Your task to perform on an android device: turn off priority inbox in the gmail app Image 0: 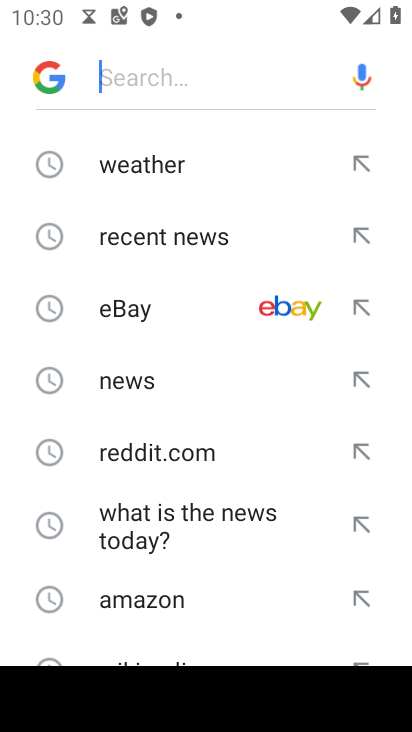
Step 0: press home button
Your task to perform on an android device: turn off priority inbox in the gmail app Image 1: 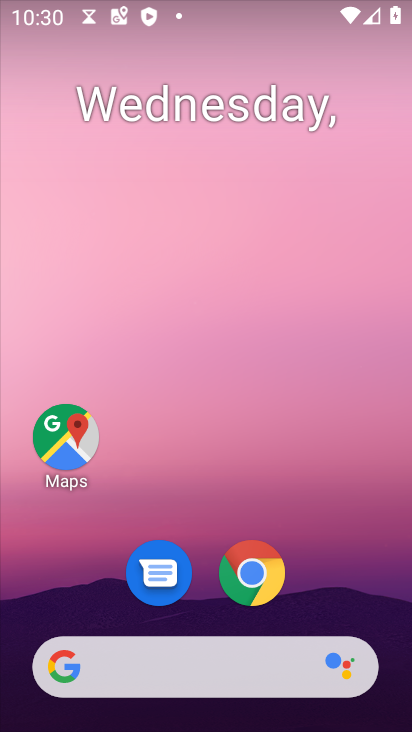
Step 1: drag from (210, 646) to (204, 223)
Your task to perform on an android device: turn off priority inbox in the gmail app Image 2: 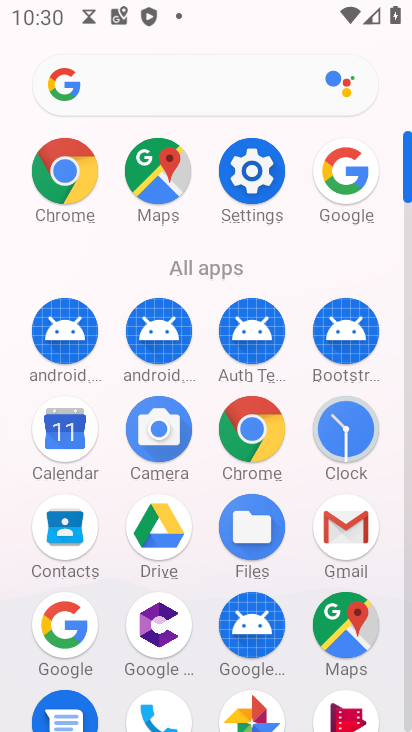
Step 2: click (360, 530)
Your task to perform on an android device: turn off priority inbox in the gmail app Image 3: 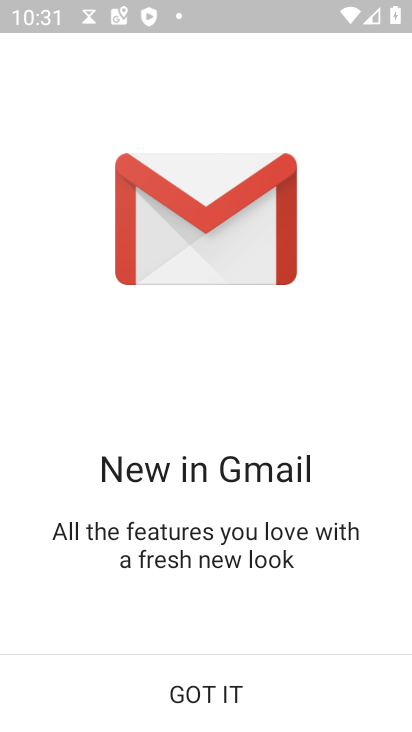
Step 3: click (216, 691)
Your task to perform on an android device: turn off priority inbox in the gmail app Image 4: 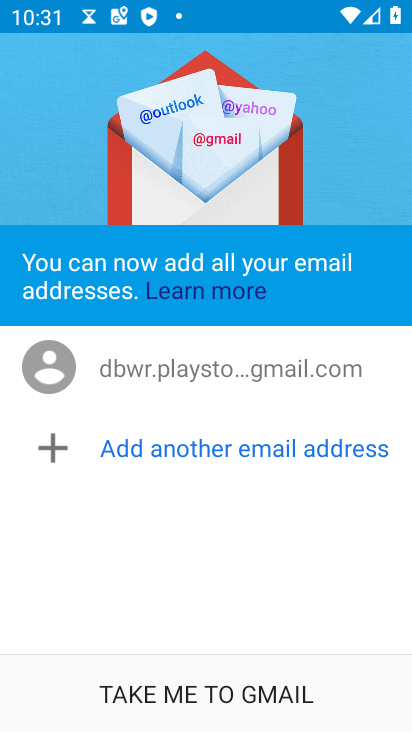
Step 4: click (213, 687)
Your task to perform on an android device: turn off priority inbox in the gmail app Image 5: 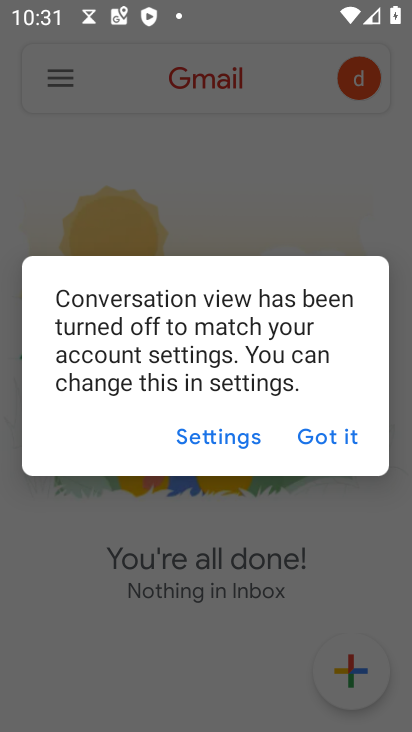
Step 5: click (348, 442)
Your task to perform on an android device: turn off priority inbox in the gmail app Image 6: 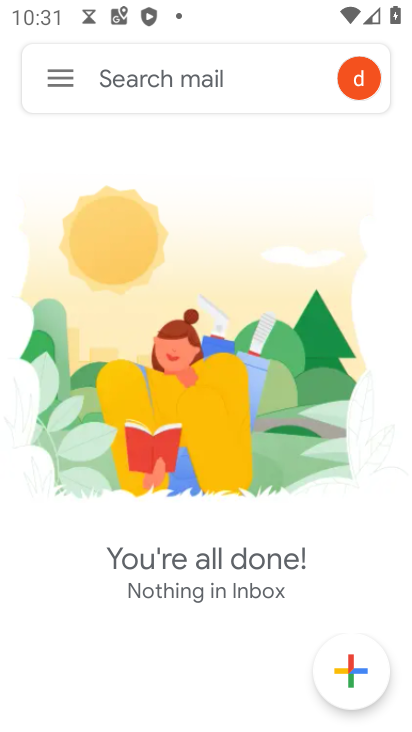
Step 6: click (52, 70)
Your task to perform on an android device: turn off priority inbox in the gmail app Image 7: 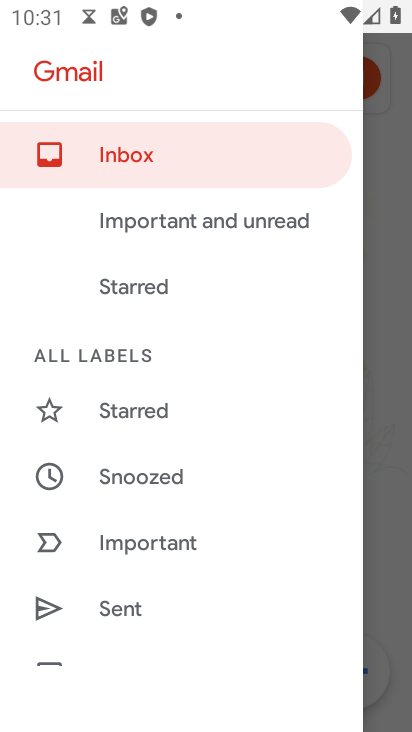
Step 7: drag from (153, 632) to (153, 357)
Your task to perform on an android device: turn off priority inbox in the gmail app Image 8: 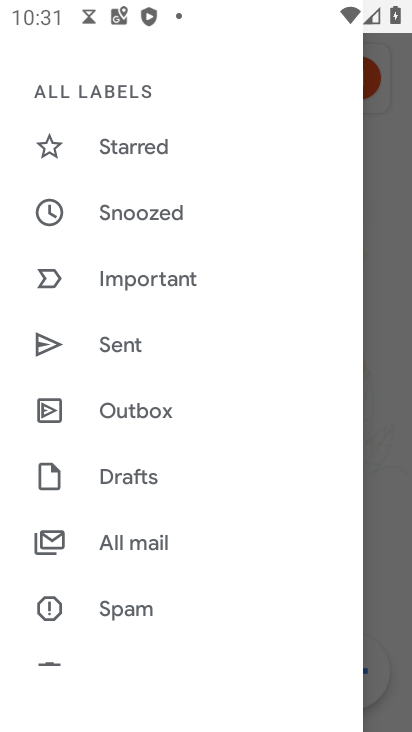
Step 8: drag from (142, 656) to (126, 390)
Your task to perform on an android device: turn off priority inbox in the gmail app Image 9: 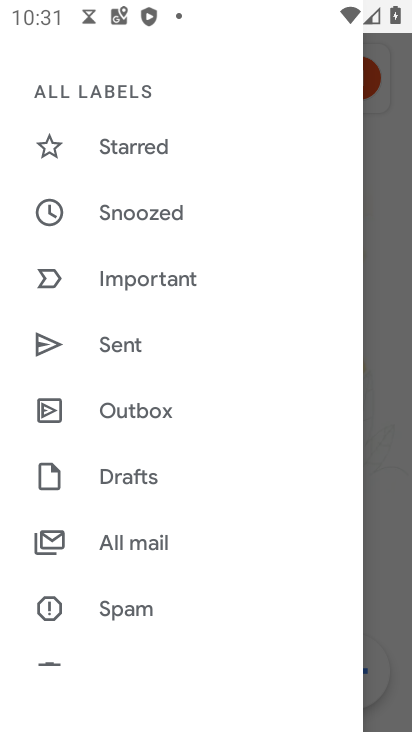
Step 9: drag from (141, 647) to (137, 415)
Your task to perform on an android device: turn off priority inbox in the gmail app Image 10: 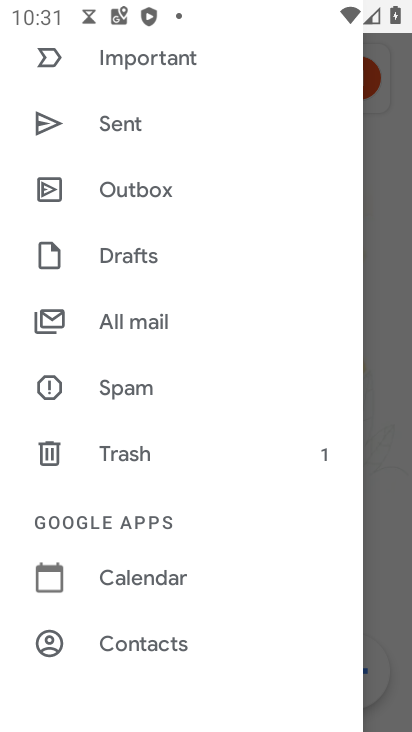
Step 10: drag from (134, 659) to (141, 318)
Your task to perform on an android device: turn off priority inbox in the gmail app Image 11: 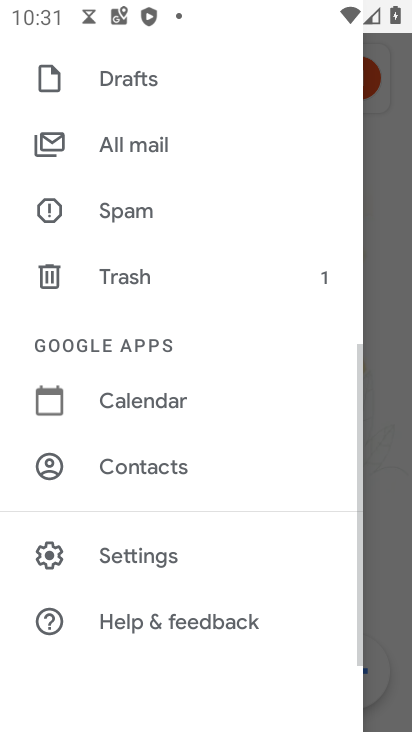
Step 11: click (129, 553)
Your task to perform on an android device: turn off priority inbox in the gmail app Image 12: 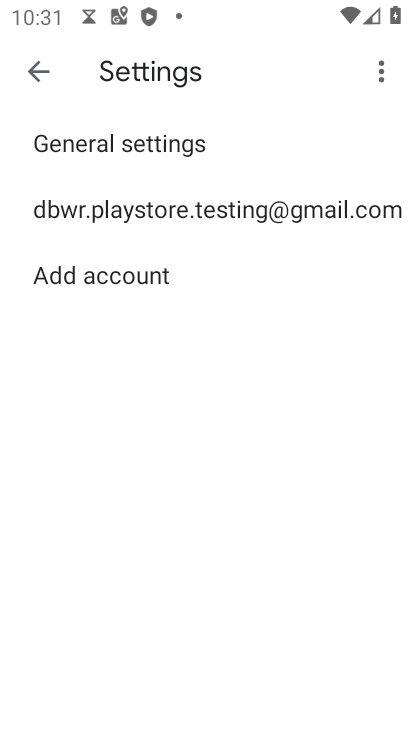
Step 12: click (202, 206)
Your task to perform on an android device: turn off priority inbox in the gmail app Image 13: 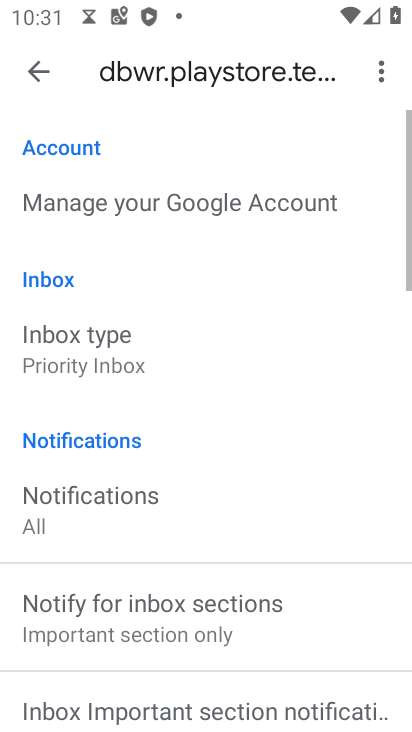
Step 13: click (94, 349)
Your task to perform on an android device: turn off priority inbox in the gmail app Image 14: 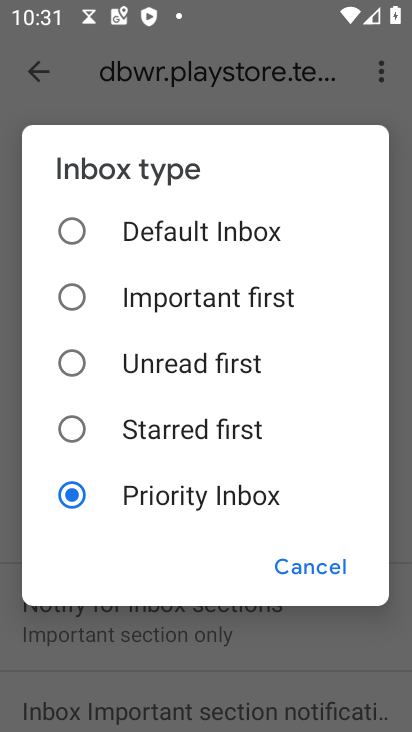
Step 14: click (68, 220)
Your task to perform on an android device: turn off priority inbox in the gmail app Image 15: 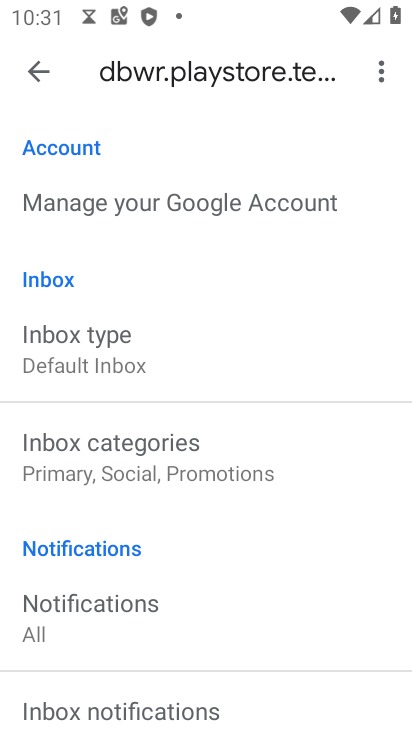
Step 15: task complete